Your task to perform on an android device: change the clock style Image 0: 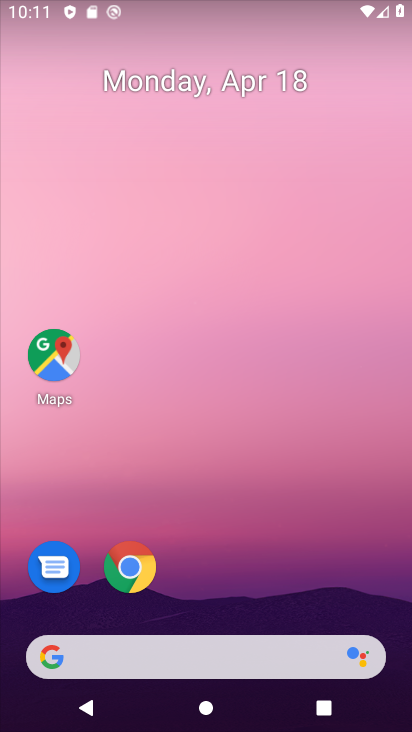
Step 0: drag from (196, 605) to (217, 218)
Your task to perform on an android device: change the clock style Image 1: 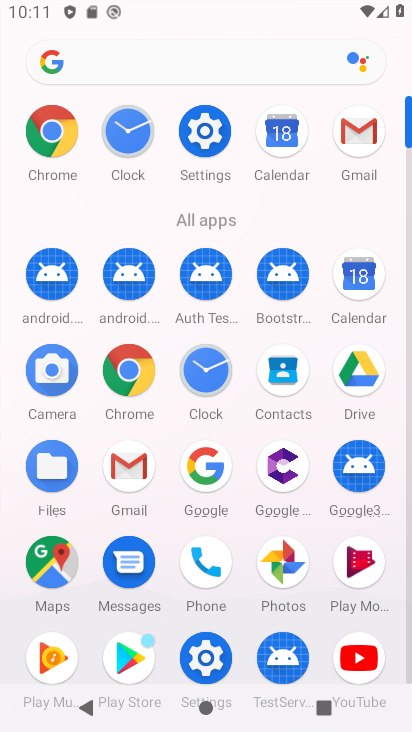
Step 1: click (123, 126)
Your task to perform on an android device: change the clock style Image 2: 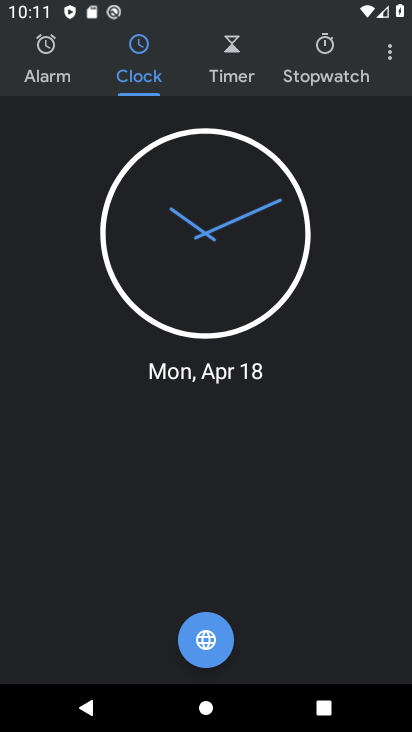
Step 2: click (384, 44)
Your task to perform on an android device: change the clock style Image 3: 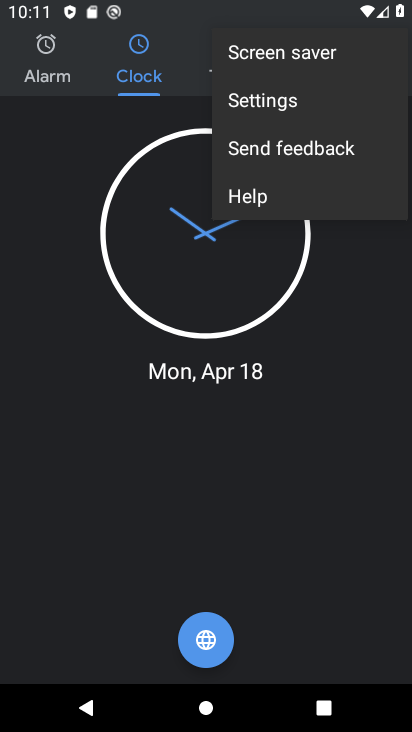
Step 3: click (272, 101)
Your task to perform on an android device: change the clock style Image 4: 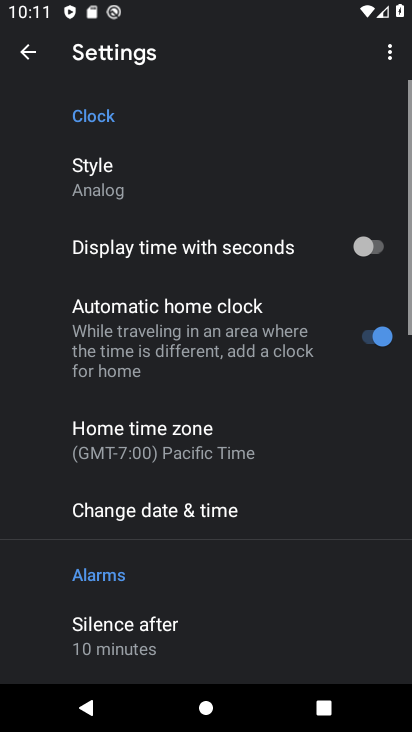
Step 4: click (85, 172)
Your task to perform on an android device: change the clock style Image 5: 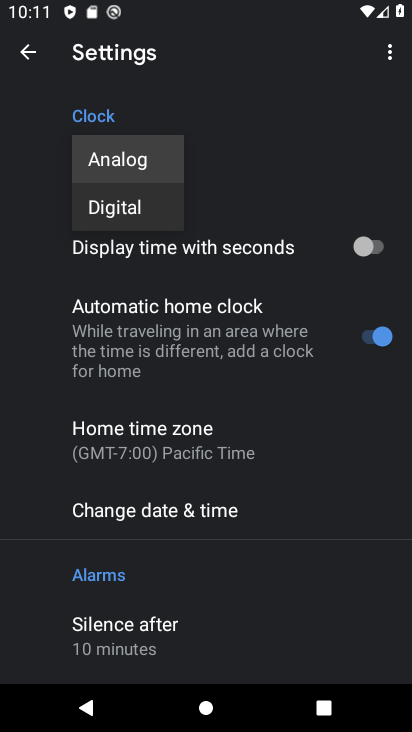
Step 5: click (142, 224)
Your task to perform on an android device: change the clock style Image 6: 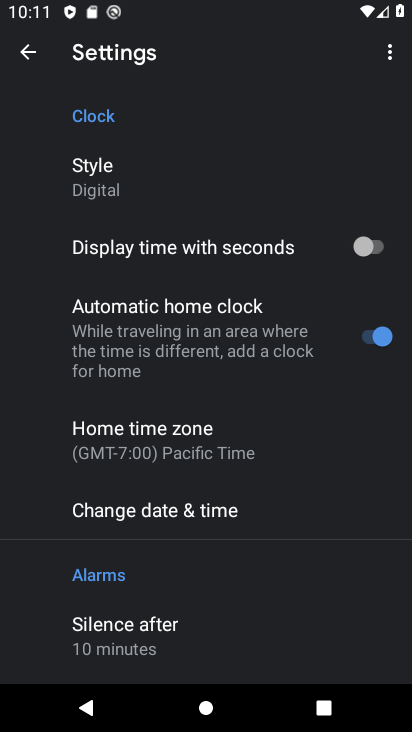
Step 6: task complete